Your task to perform on an android device: Is it going to rain this weekend? Image 0: 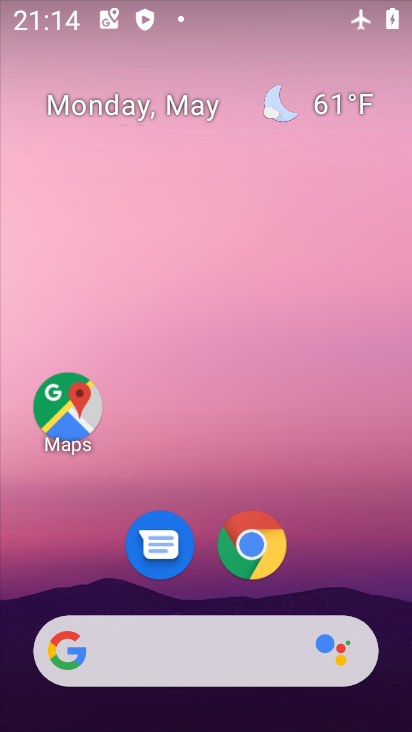
Step 0: click (328, 122)
Your task to perform on an android device: Is it going to rain this weekend? Image 1: 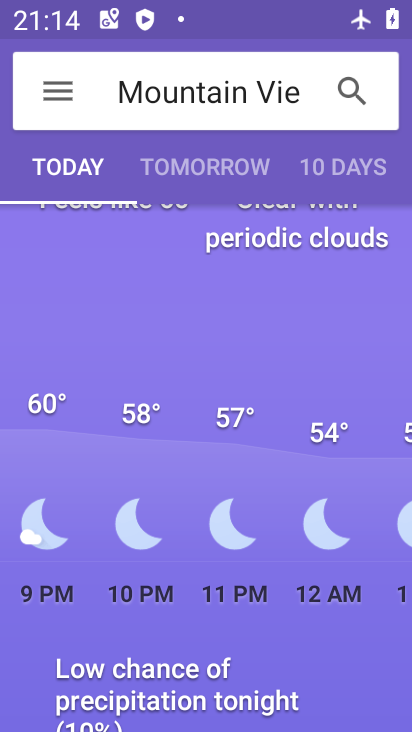
Step 1: task complete